Your task to perform on an android device: What's the news in India? Image 0: 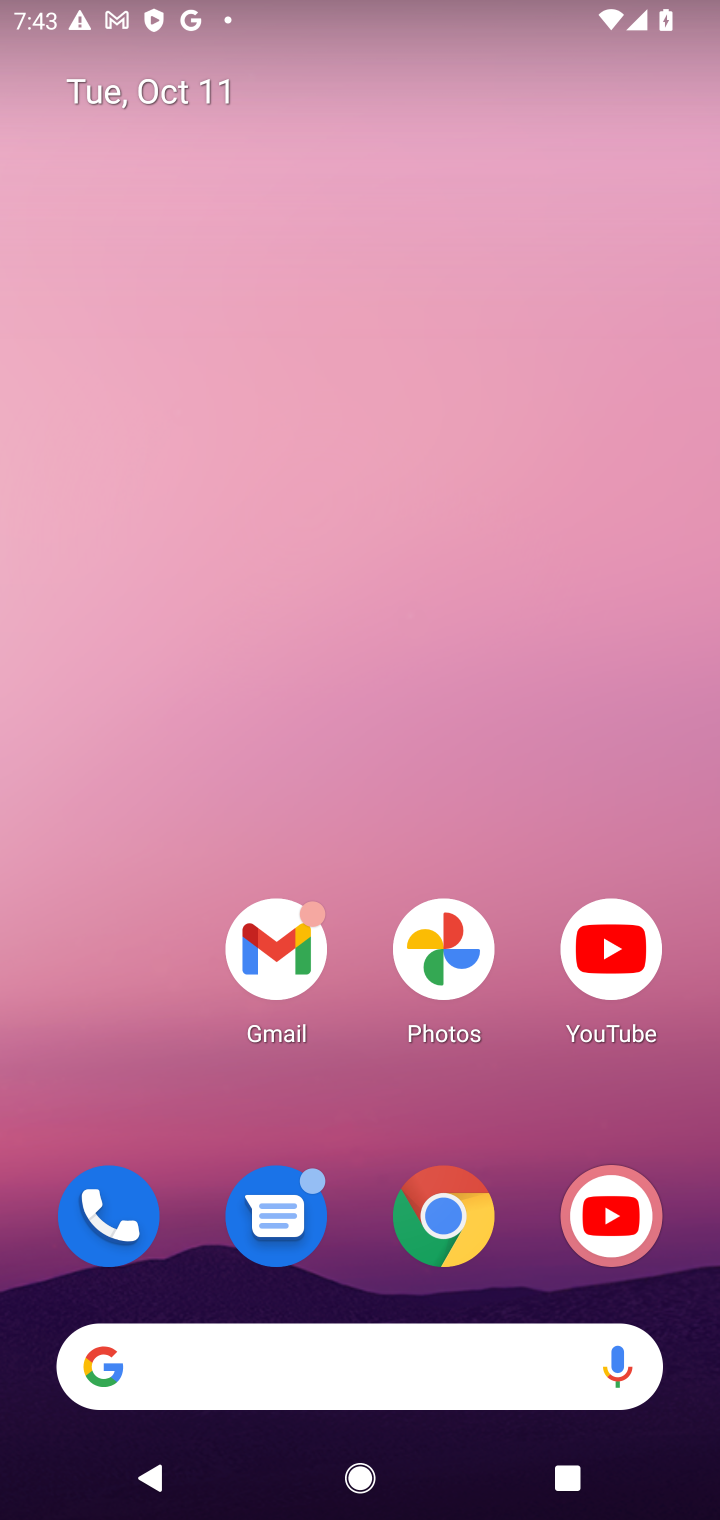
Step 0: click (433, 1254)
Your task to perform on an android device: What's the news in India? Image 1: 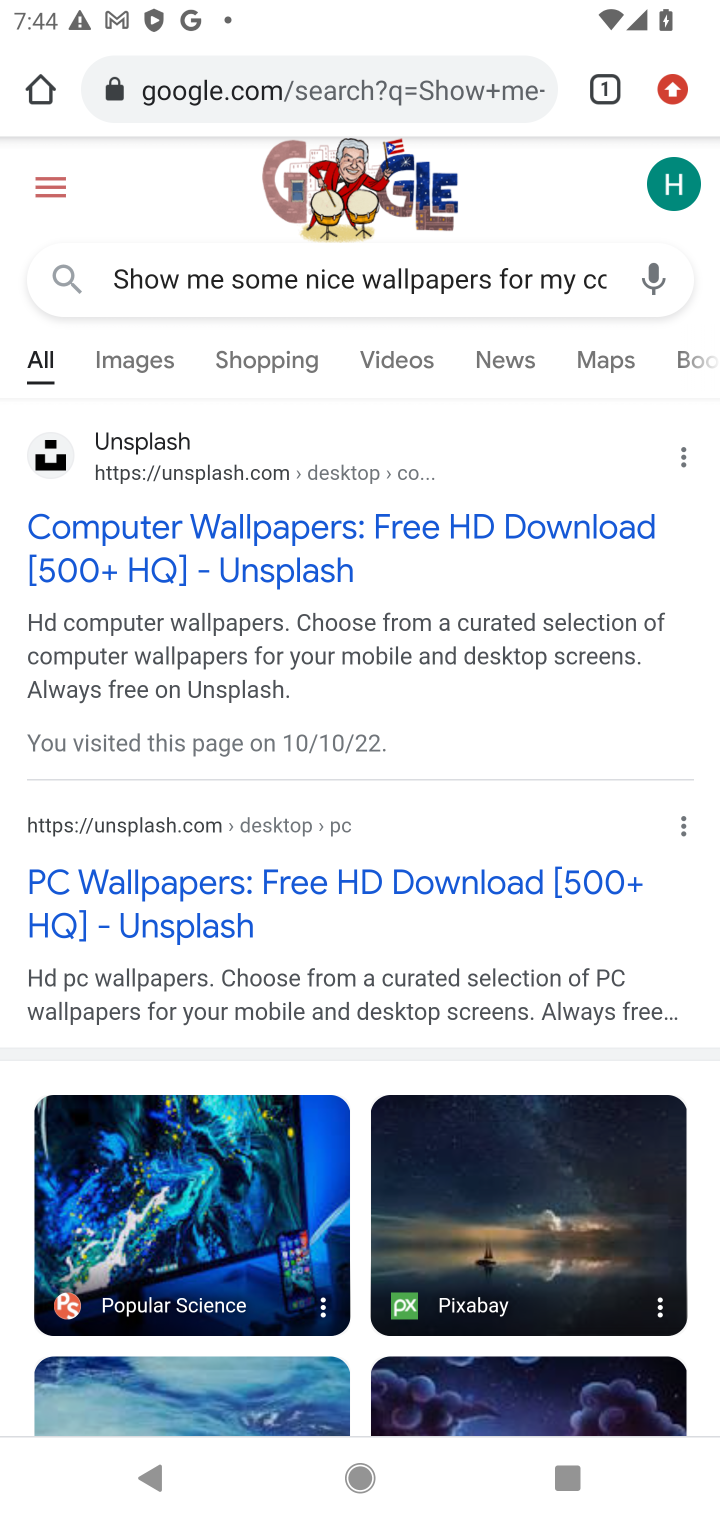
Step 1: click (222, 282)
Your task to perform on an android device: What's the news in India? Image 2: 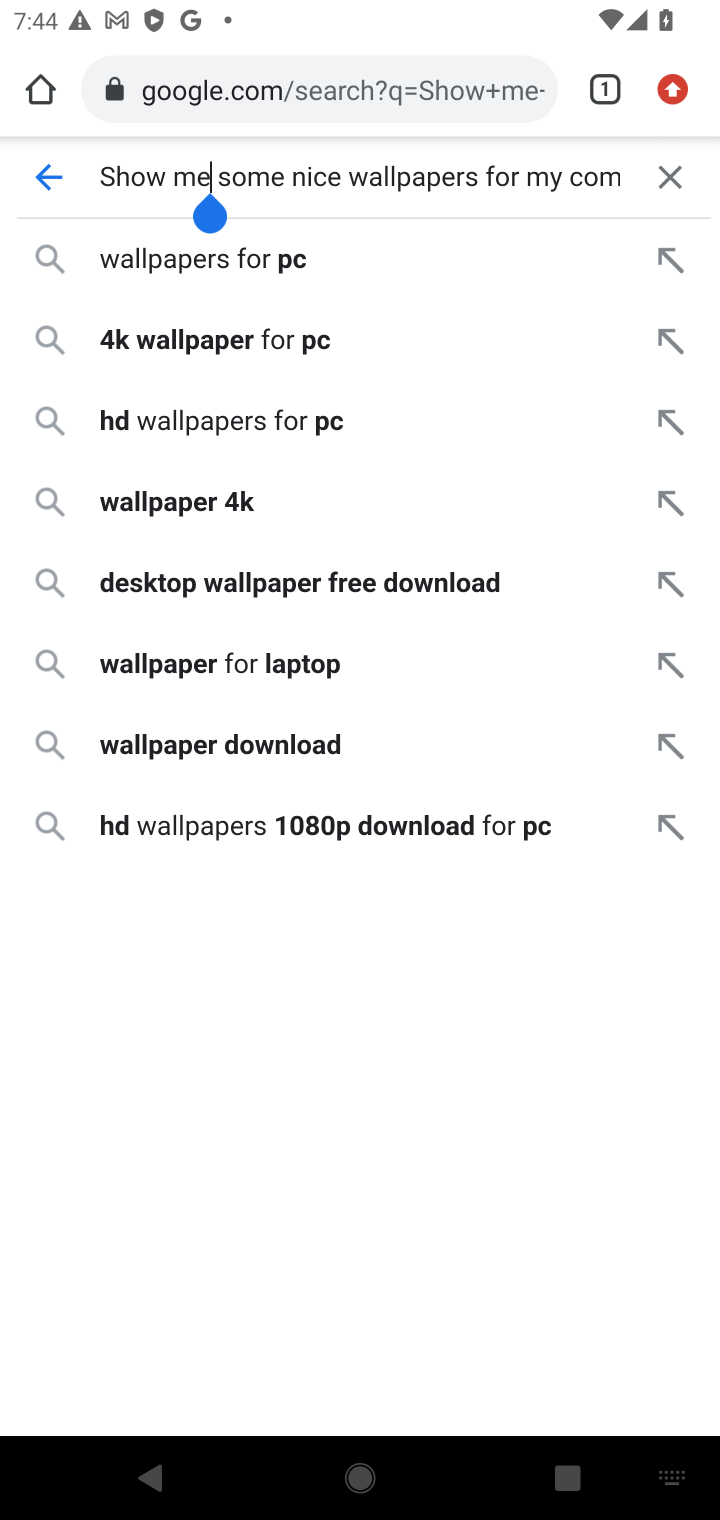
Step 2: click (677, 175)
Your task to perform on an android device: What's the news in India? Image 3: 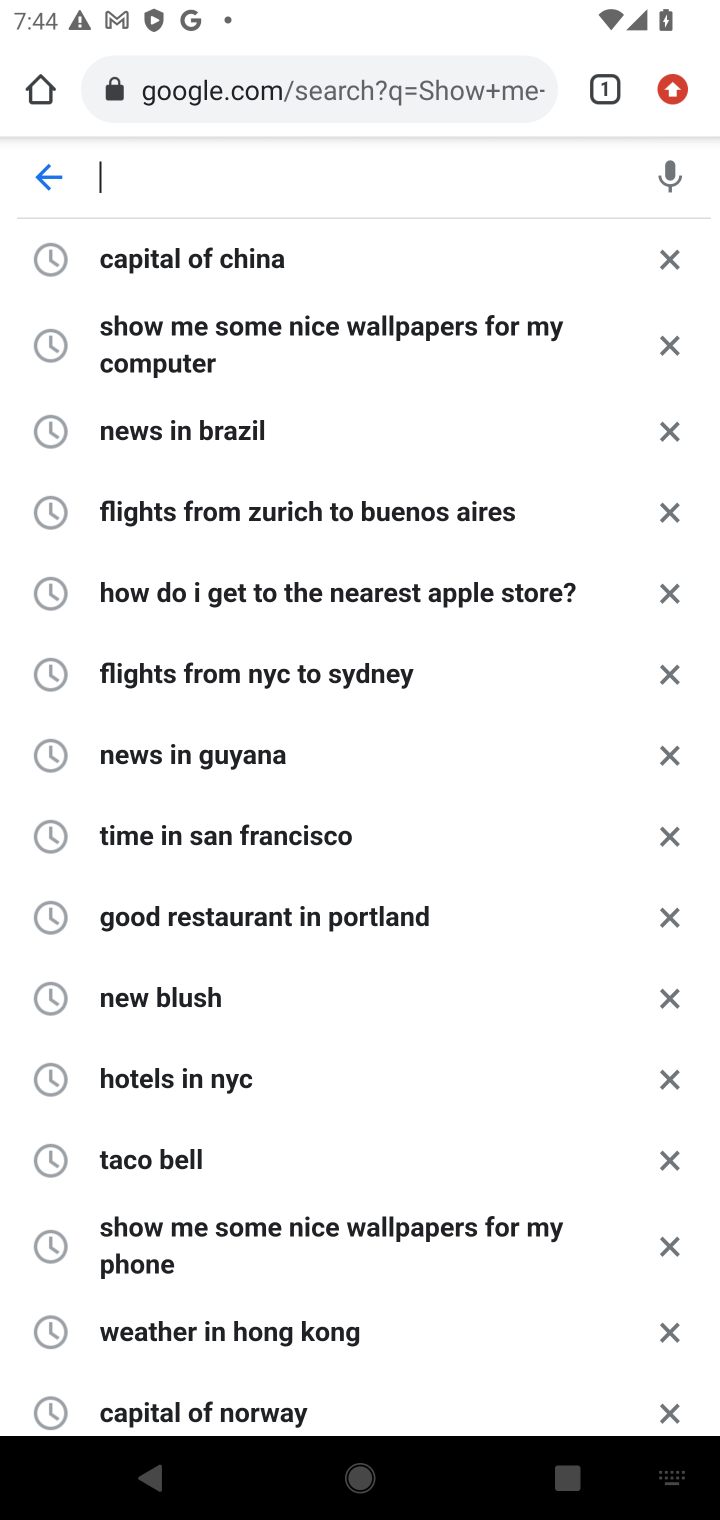
Step 3: type "news in indioa"
Your task to perform on an android device: What's the news in India? Image 4: 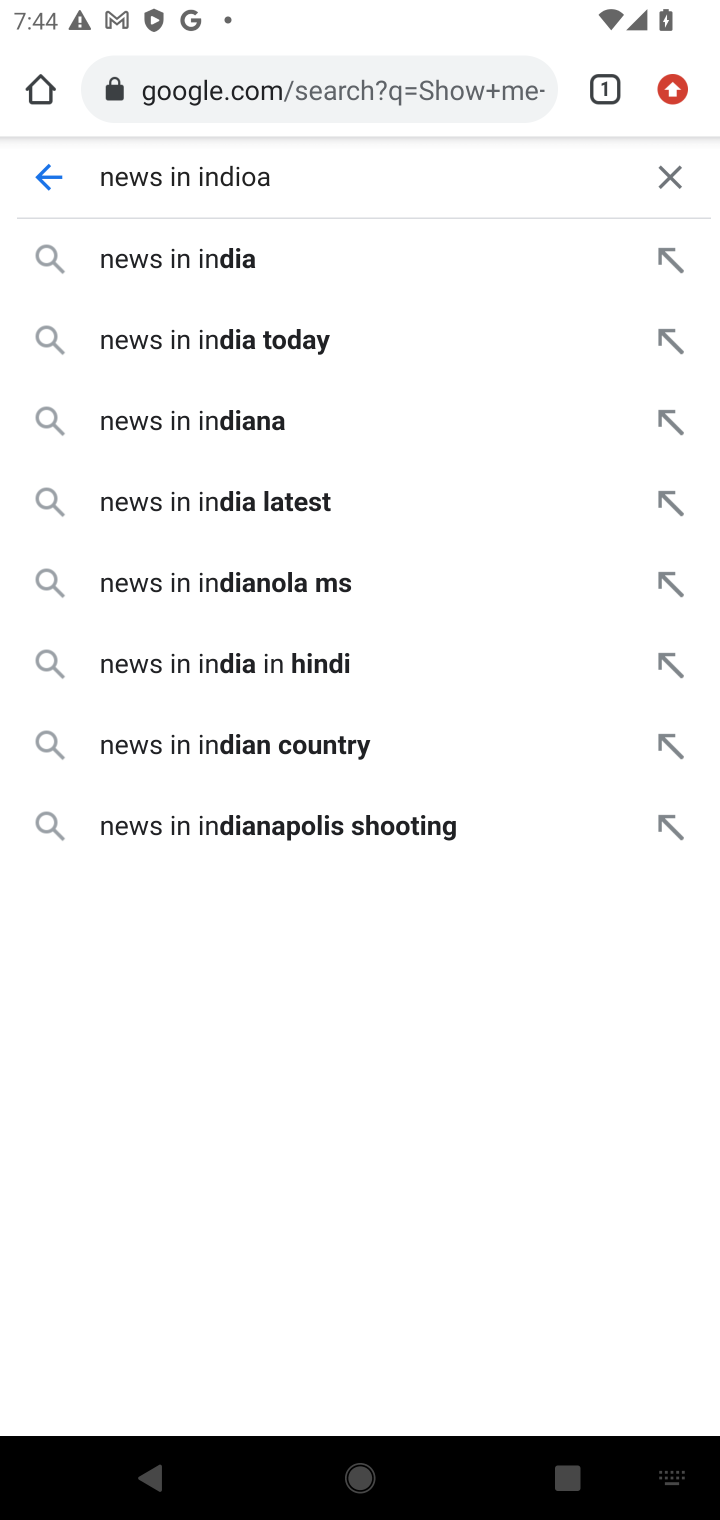
Step 4: click (258, 274)
Your task to perform on an android device: What's the news in India? Image 5: 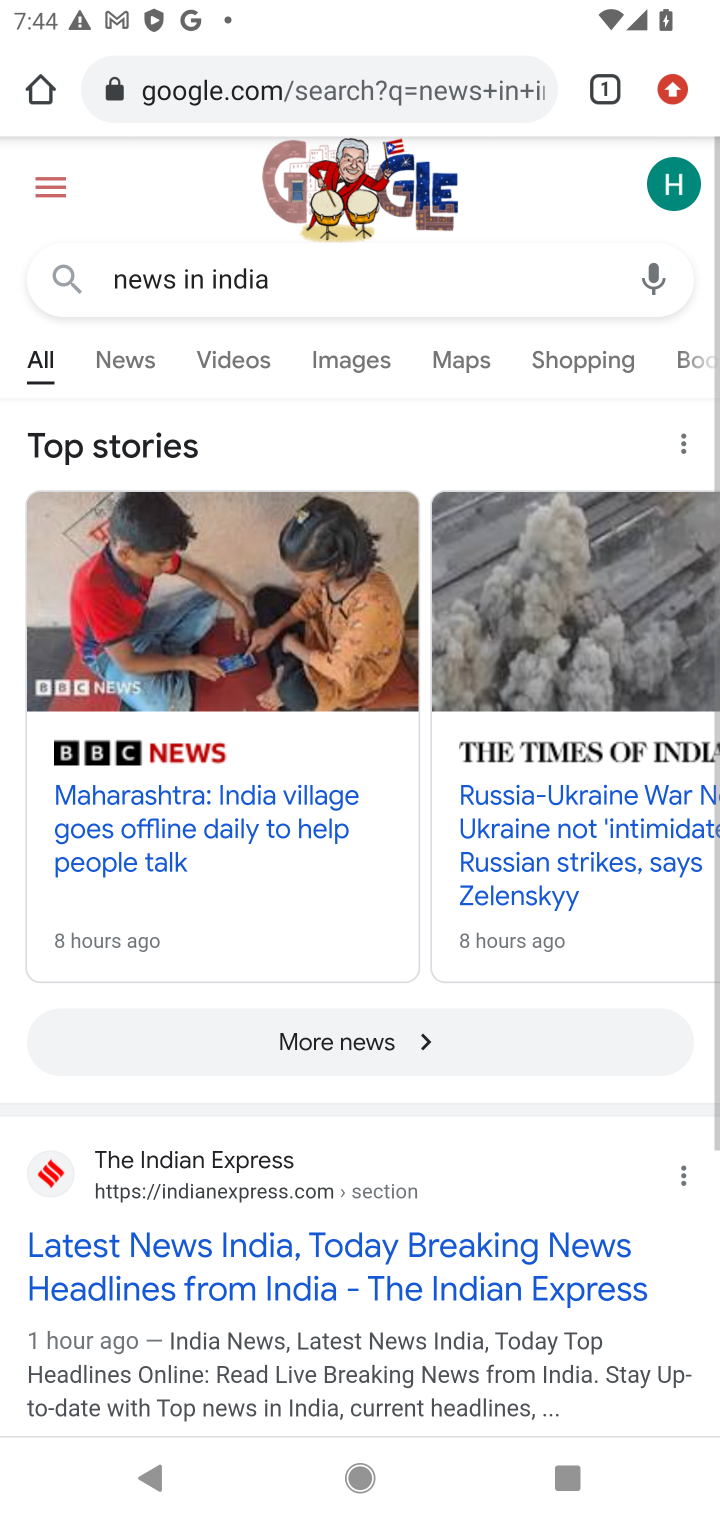
Step 5: task complete